Your task to perform on an android device: clear history in the chrome app Image 0: 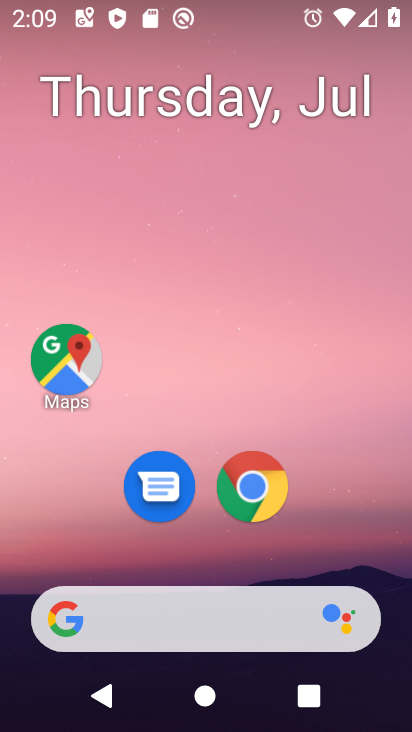
Step 0: click (253, 488)
Your task to perform on an android device: clear history in the chrome app Image 1: 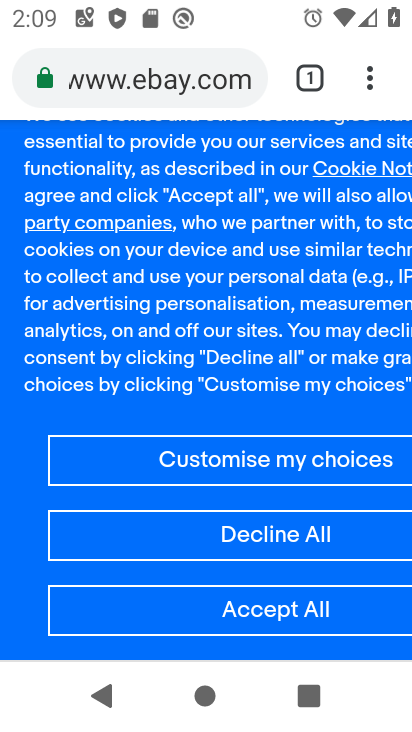
Step 1: drag from (360, 79) to (73, 436)
Your task to perform on an android device: clear history in the chrome app Image 2: 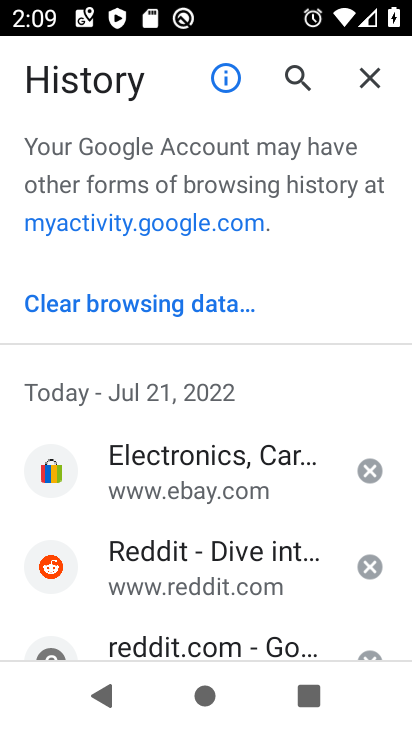
Step 2: click (127, 304)
Your task to perform on an android device: clear history in the chrome app Image 3: 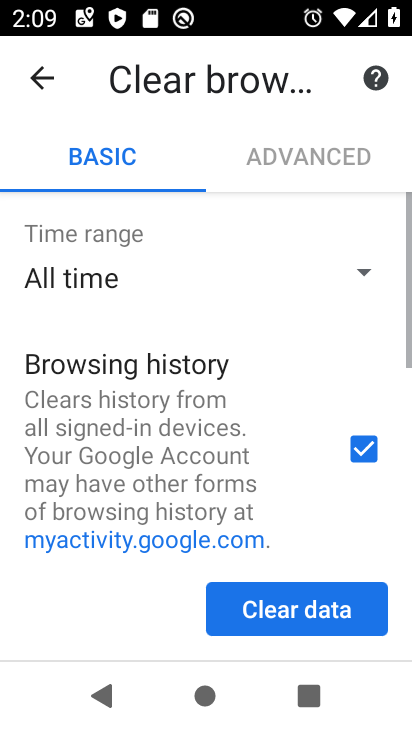
Step 3: drag from (172, 530) to (258, 68)
Your task to perform on an android device: clear history in the chrome app Image 4: 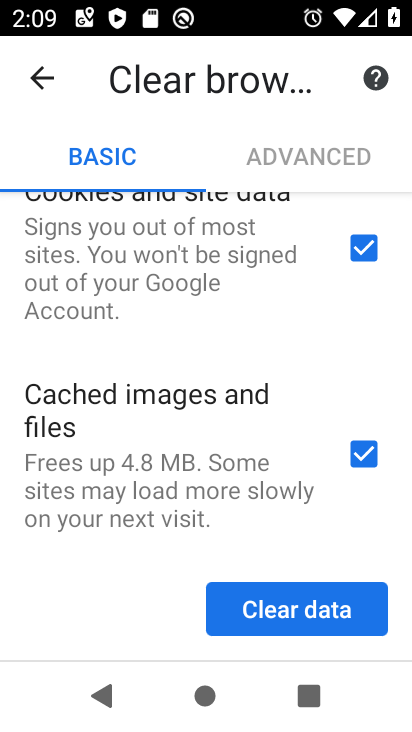
Step 4: click (312, 644)
Your task to perform on an android device: clear history in the chrome app Image 5: 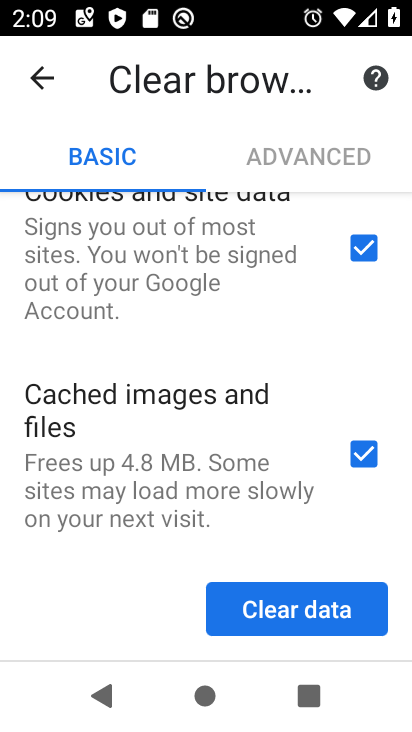
Step 5: click (313, 610)
Your task to perform on an android device: clear history in the chrome app Image 6: 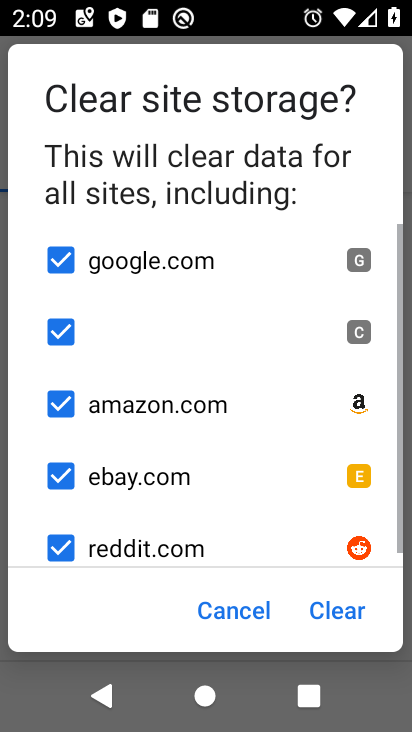
Step 6: click (336, 594)
Your task to perform on an android device: clear history in the chrome app Image 7: 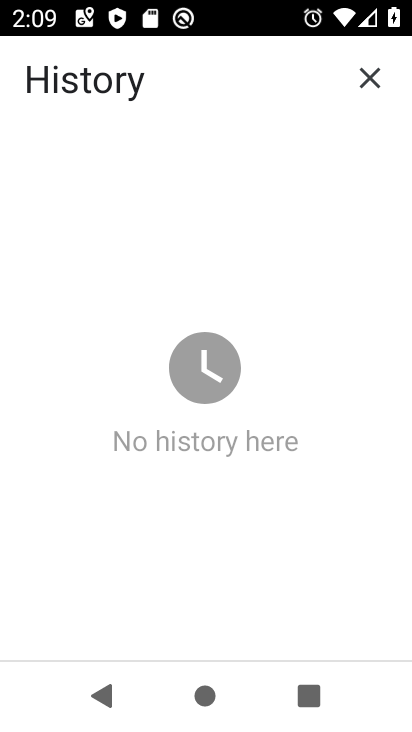
Step 7: task complete